Your task to perform on an android device: Is it going to rain today? Image 0: 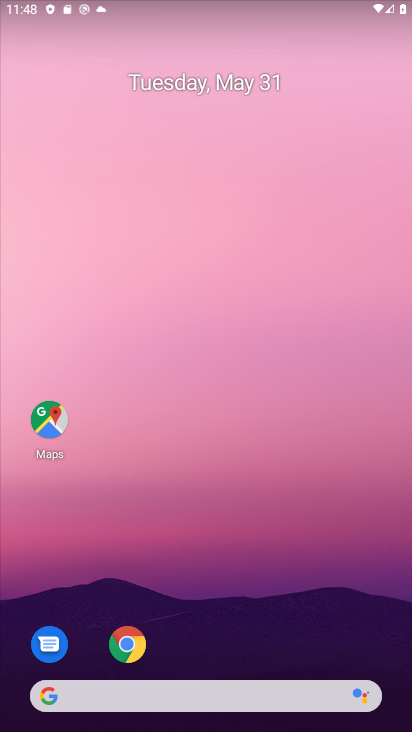
Step 0: drag from (228, 602) to (229, 142)
Your task to perform on an android device: Is it going to rain today? Image 1: 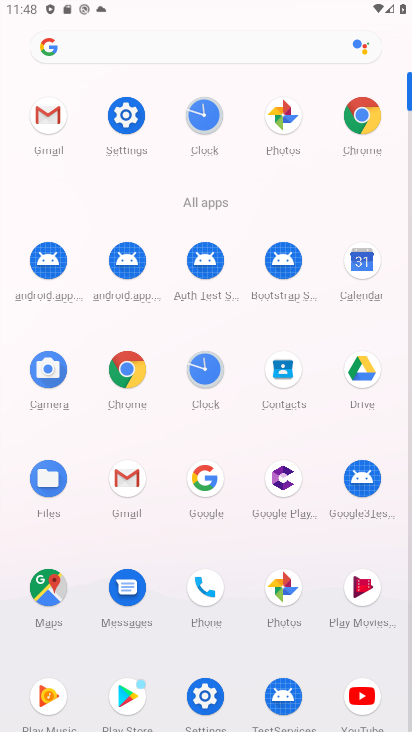
Step 1: click (357, 118)
Your task to perform on an android device: Is it going to rain today? Image 2: 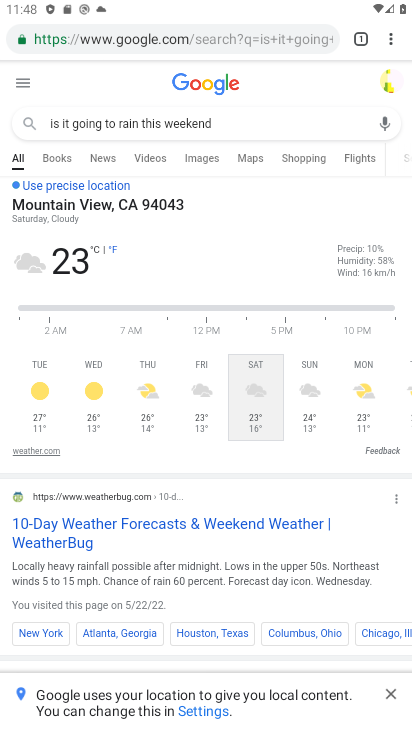
Step 2: click (202, 45)
Your task to perform on an android device: Is it going to rain today? Image 3: 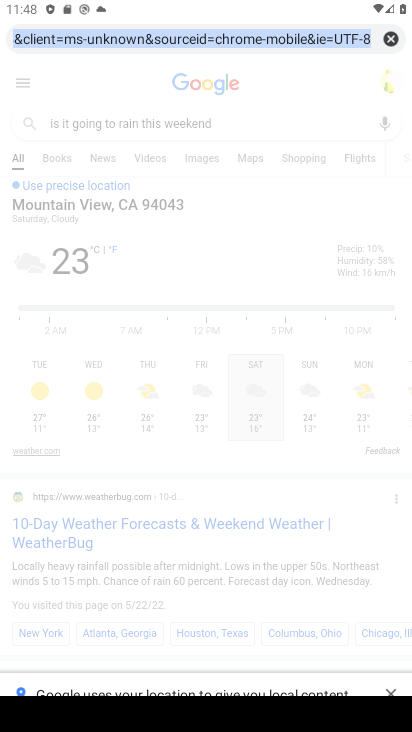
Step 3: click (396, 39)
Your task to perform on an android device: Is it going to rain today? Image 4: 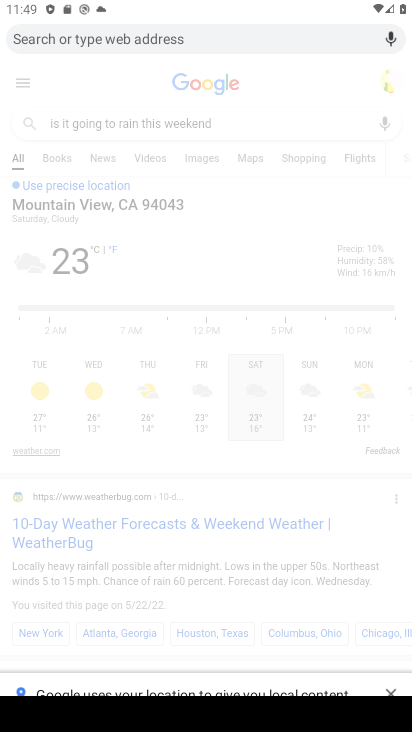
Step 4: type "is it going to rain today"
Your task to perform on an android device: Is it going to rain today? Image 5: 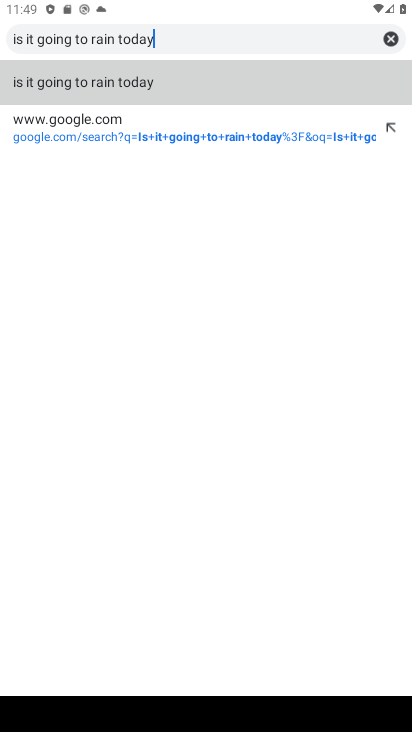
Step 5: click (249, 105)
Your task to perform on an android device: Is it going to rain today? Image 6: 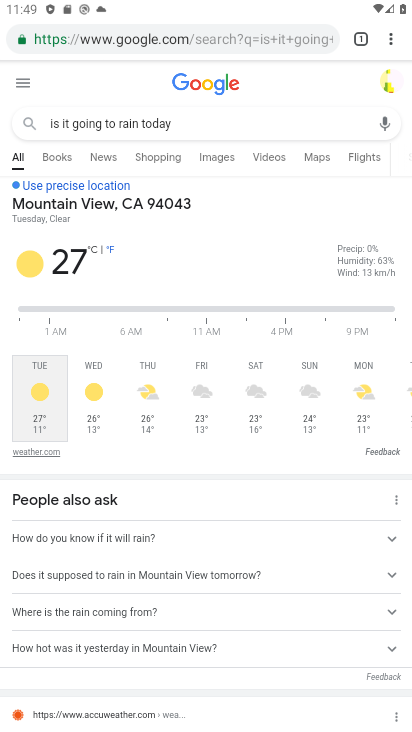
Step 6: task complete